Your task to perform on an android device: check android version Image 0: 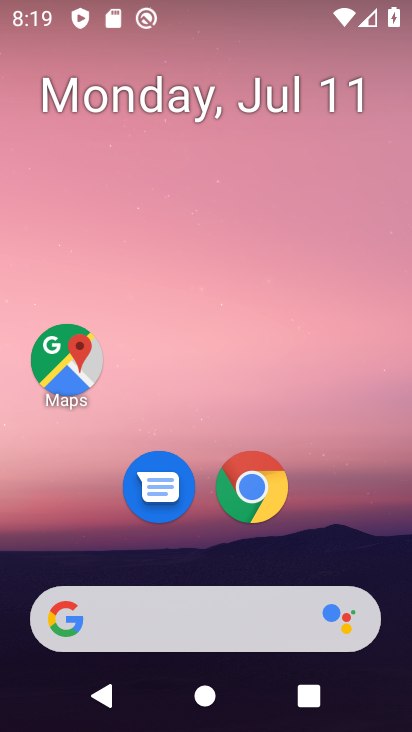
Step 0: drag from (212, 355) to (270, 5)
Your task to perform on an android device: check android version Image 1: 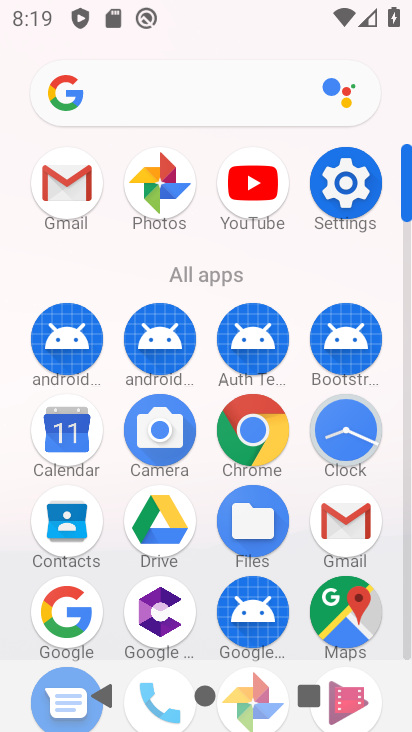
Step 1: click (341, 169)
Your task to perform on an android device: check android version Image 2: 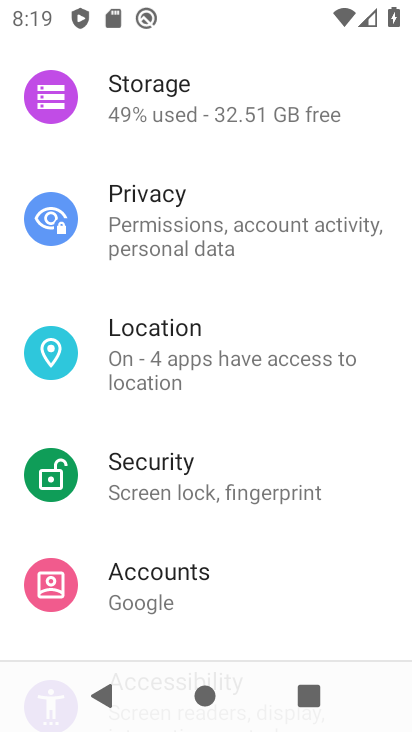
Step 2: drag from (191, 585) to (249, 56)
Your task to perform on an android device: check android version Image 3: 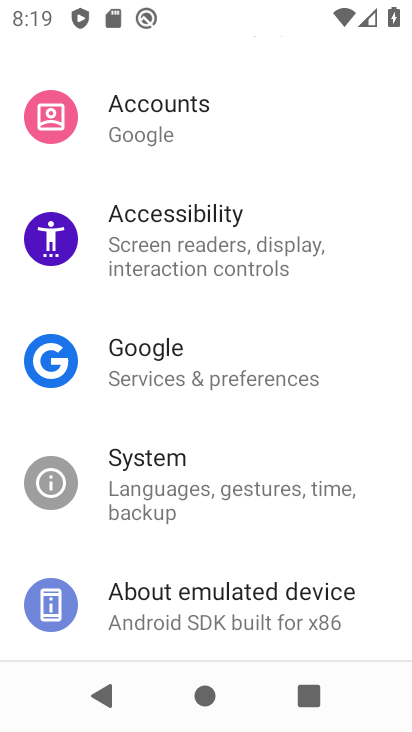
Step 3: click (199, 609)
Your task to perform on an android device: check android version Image 4: 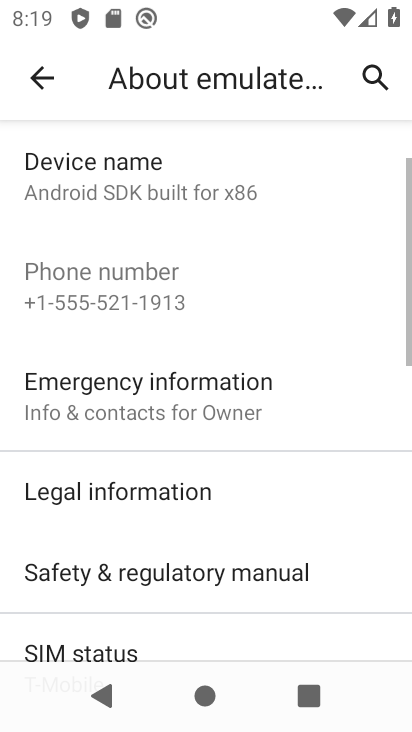
Step 4: drag from (91, 559) to (178, 142)
Your task to perform on an android device: check android version Image 5: 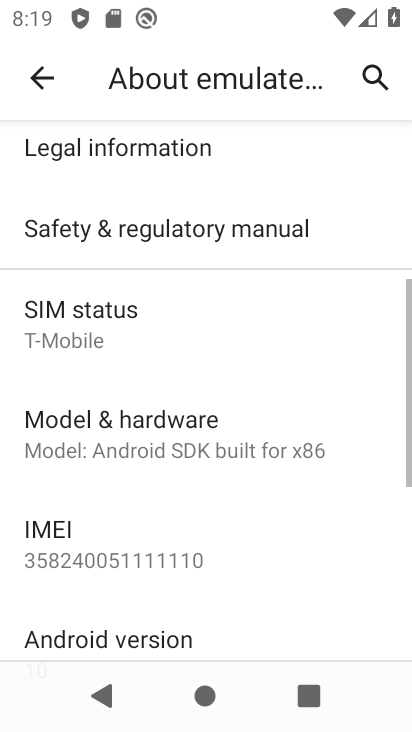
Step 5: drag from (110, 584) to (156, 298)
Your task to perform on an android device: check android version Image 6: 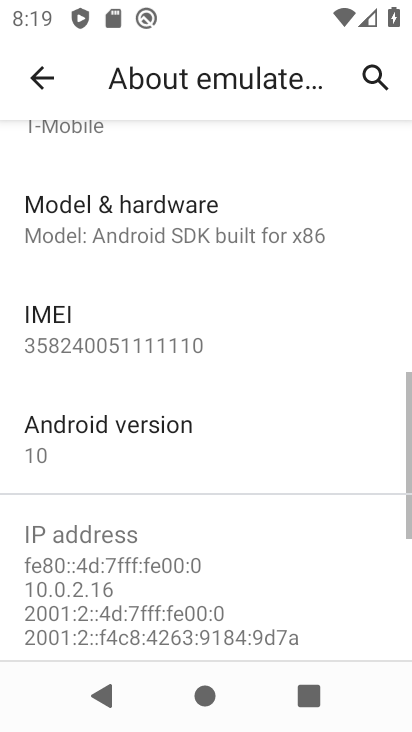
Step 6: click (58, 430)
Your task to perform on an android device: check android version Image 7: 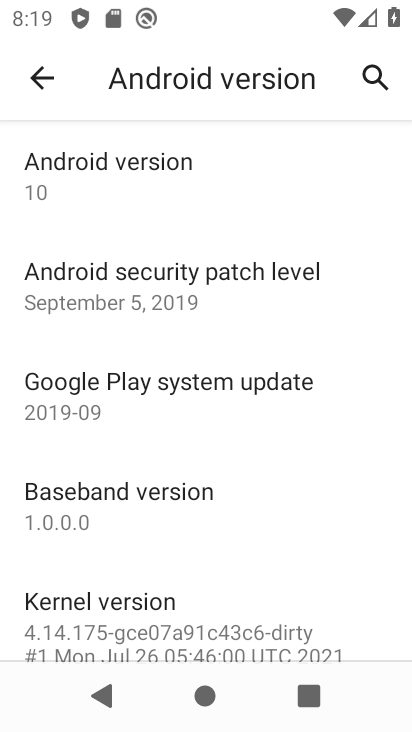
Step 7: task complete